Your task to perform on an android device: See recent photos Image 0: 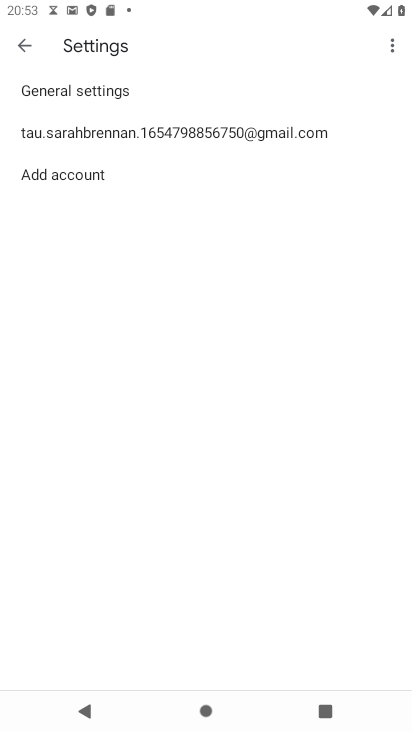
Step 0: press home button
Your task to perform on an android device: See recent photos Image 1: 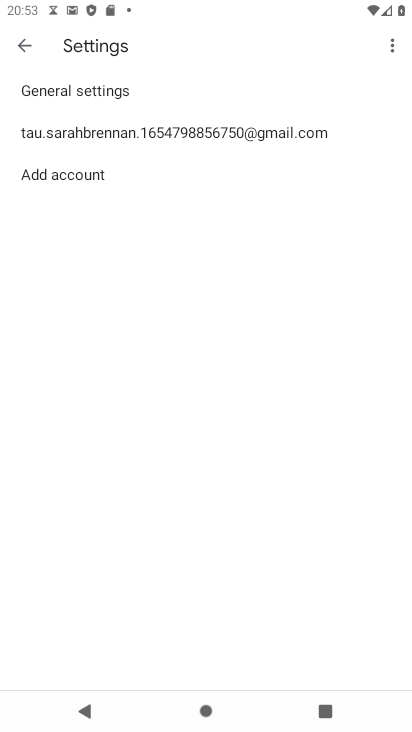
Step 1: press home button
Your task to perform on an android device: See recent photos Image 2: 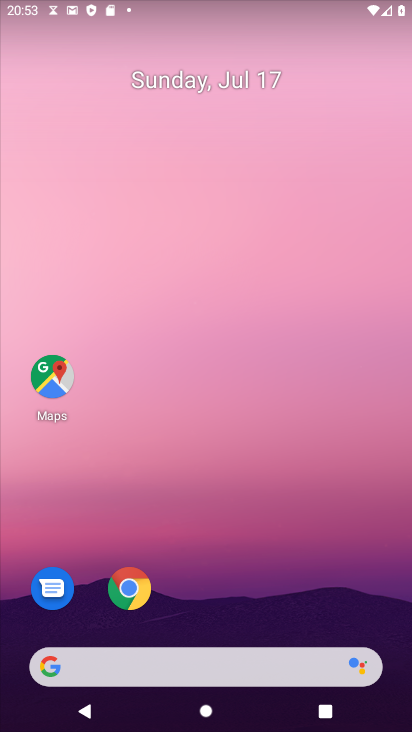
Step 2: drag from (185, 529) to (267, 76)
Your task to perform on an android device: See recent photos Image 3: 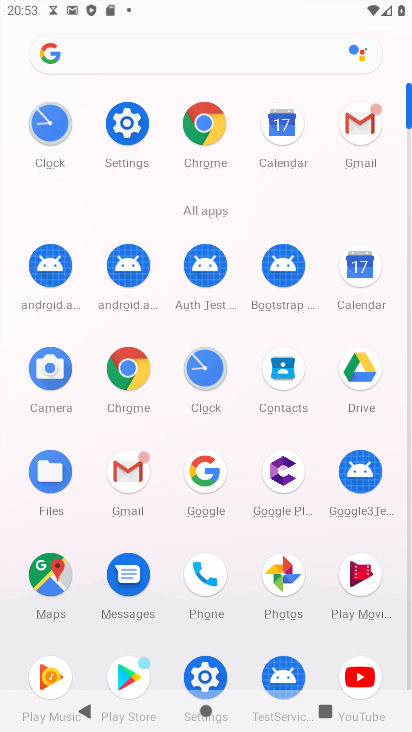
Step 3: click (293, 591)
Your task to perform on an android device: See recent photos Image 4: 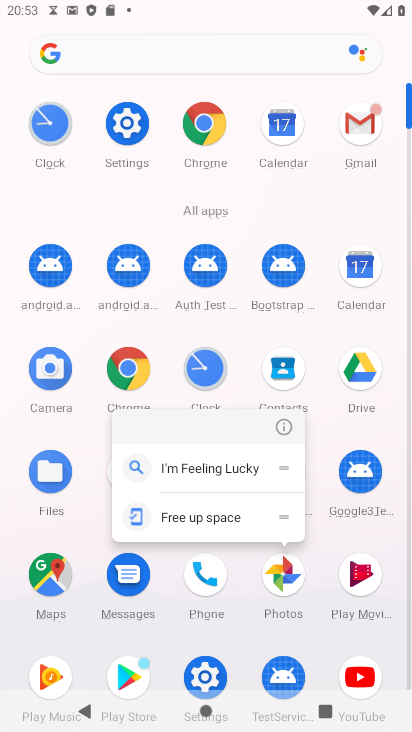
Step 4: click (293, 591)
Your task to perform on an android device: See recent photos Image 5: 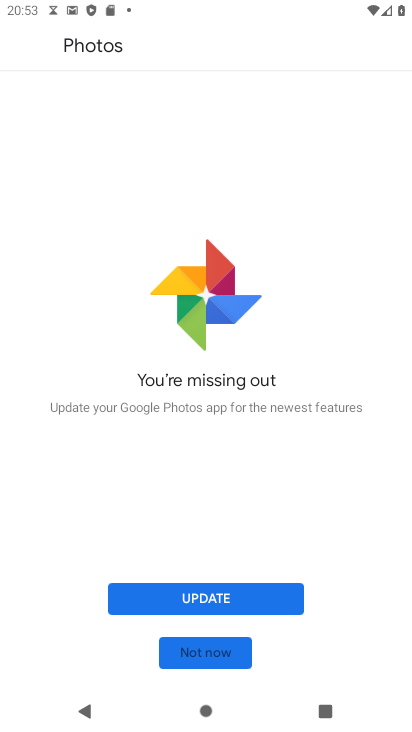
Step 5: click (236, 583)
Your task to perform on an android device: See recent photos Image 6: 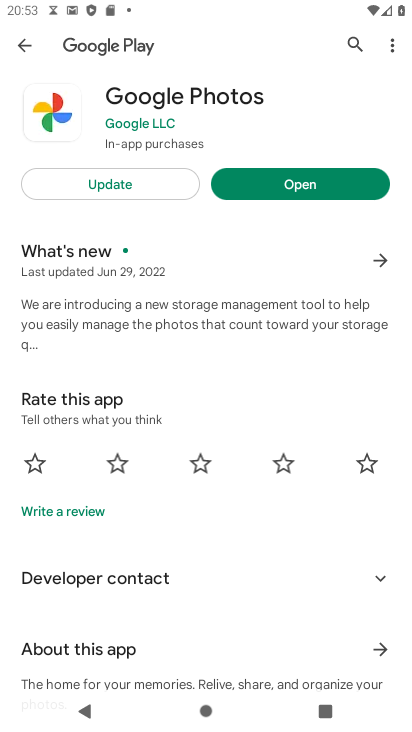
Step 6: click (160, 181)
Your task to perform on an android device: See recent photos Image 7: 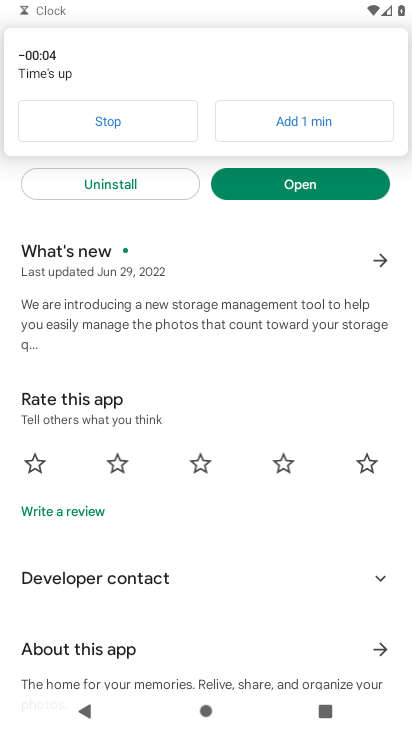
Step 7: click (160, 124)
Your task to perform on an android device: See recent photos Image 8: 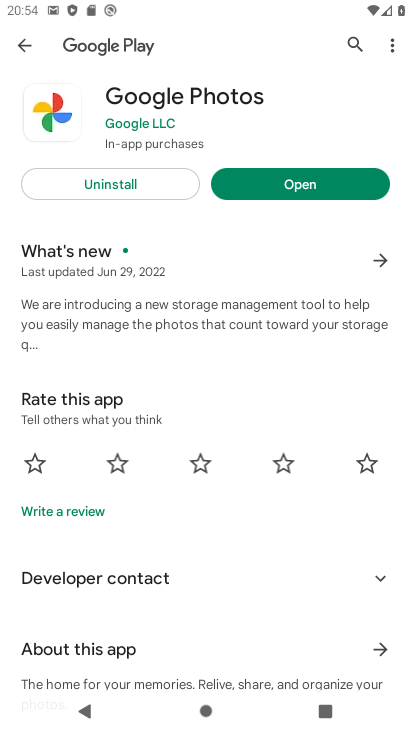
Step 8: click (271, 182)
Your task to perform on an android device: See recent photos Image 9: 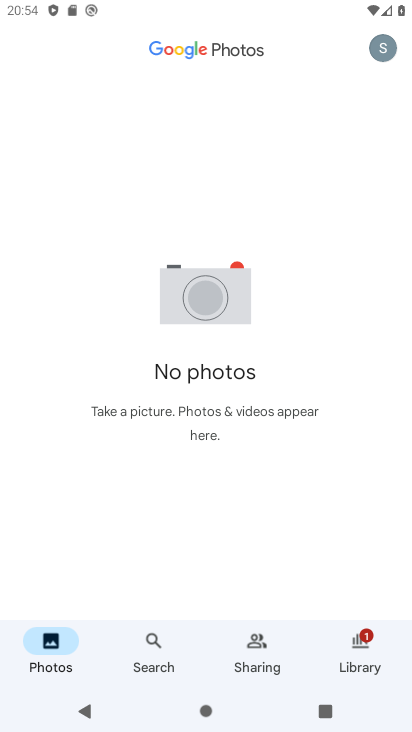
Step 9: task complete